Your task to perform on an android device: Open privacy settings Image 0: 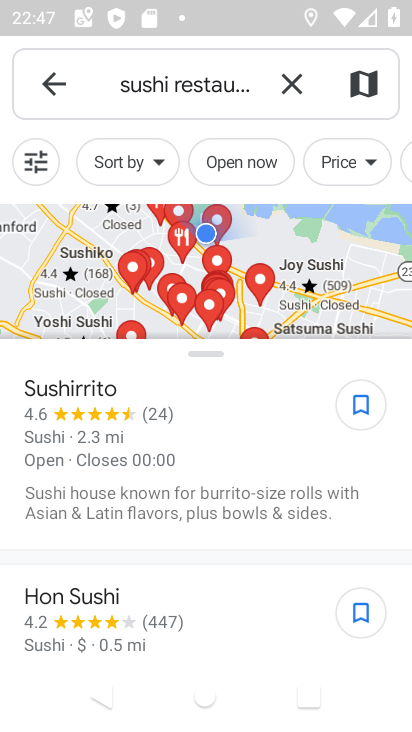
Step 0: press home button
Your task to perform on an android device: Open privacy settings Image 1: 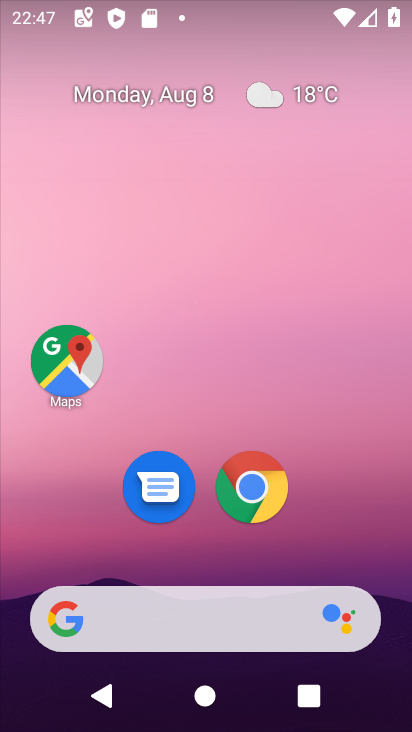
Step 1: drag from (206, 570) to (206, 16)
Your task to perform on an android device: Open privacy settings Image 2: 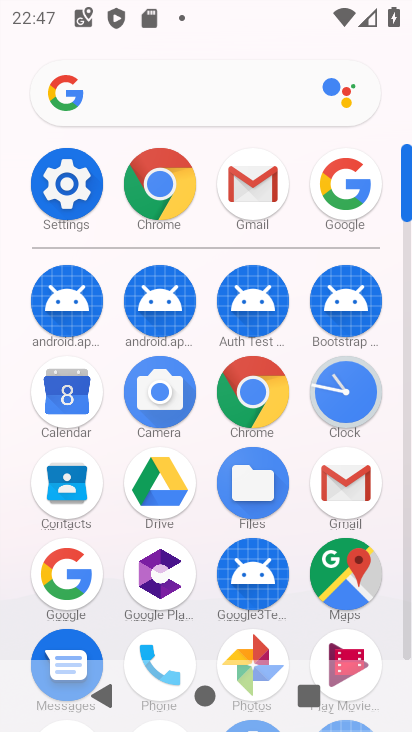
Step 2: click (66, 177)
Your task to perform on an android device: Open privacy settings Image 3: 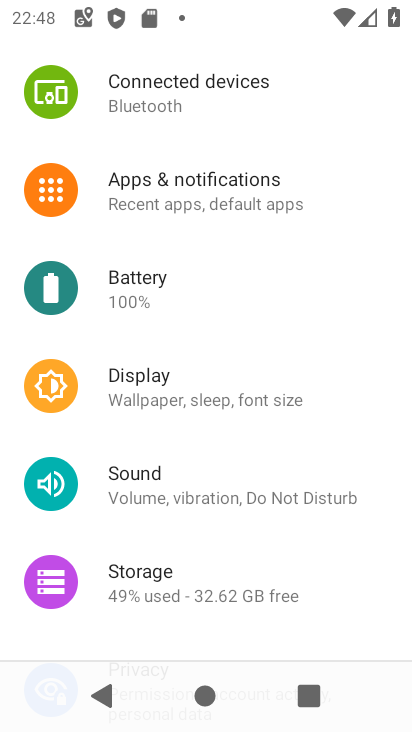
Step 3: drag from (132, 585) to (111, 267)
Your task to perform on an android device: Open privacy settings Image 4: 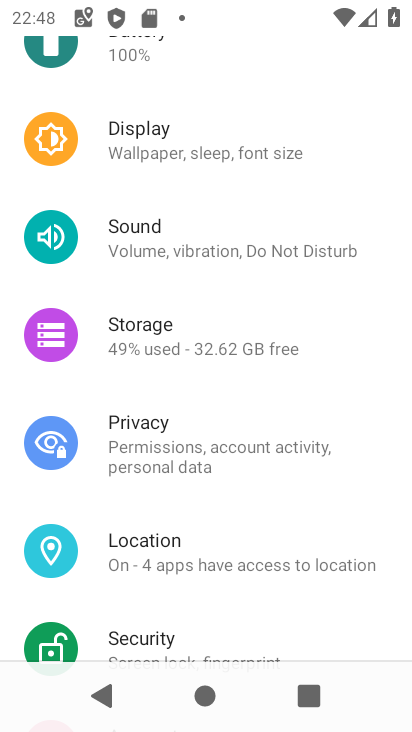
Step 4: click (145, 440)
Your task to perform on an android device: Open privacy settings Image 5: 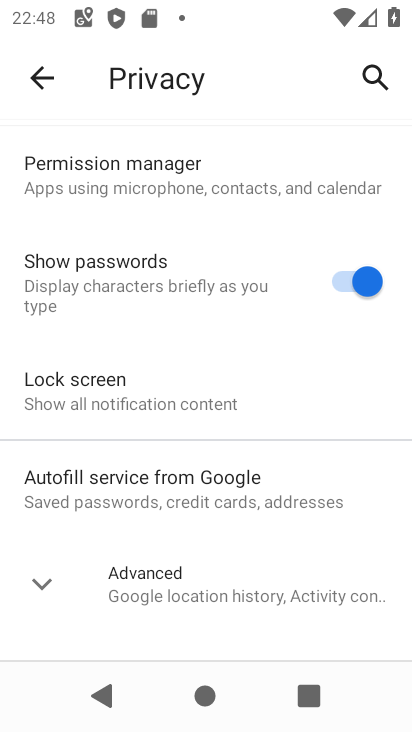
Step 5: task complete